Your task to perform on an android device: turn off location history Image 0: 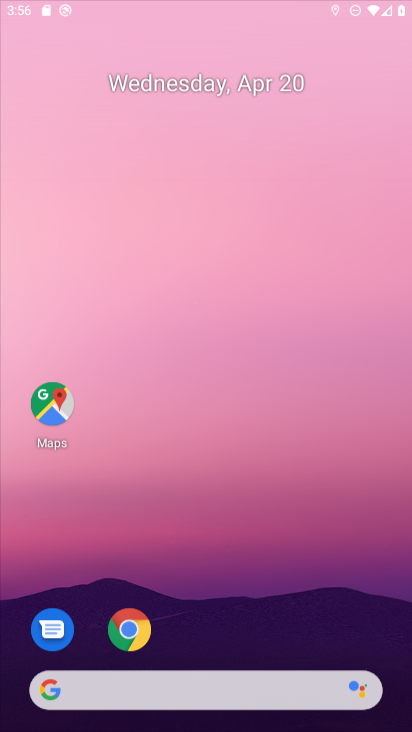
Step 0: drag from (275, 573) to (287, 73)
Your task to perform on an android device: turn off location history Image 1: 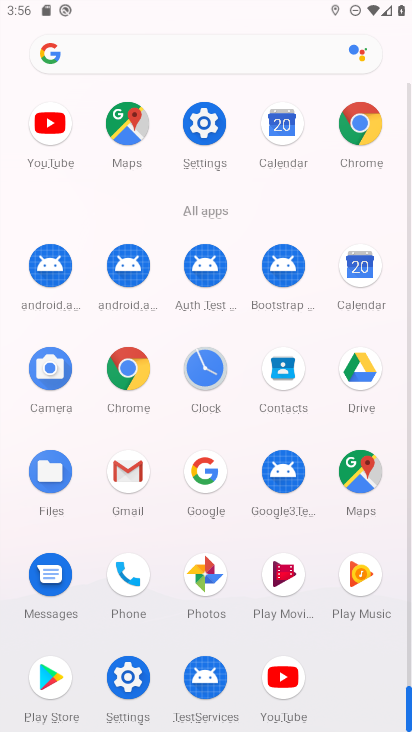
Step 1: click (134, 679)
Your task to perform on an android device: turn off location history Image 2: 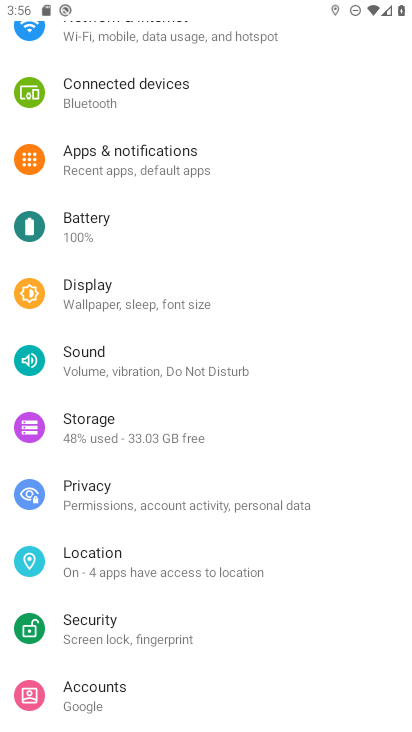
Step 2: click (147, 566)
Your task to perform on an android device: turn off location history Image 3: 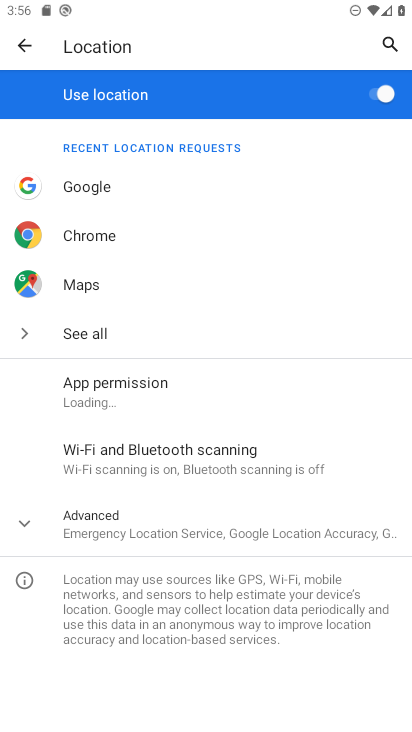
Step 3: click (156, 523)
Your task to perform on an android device: turn off location history Image 4: 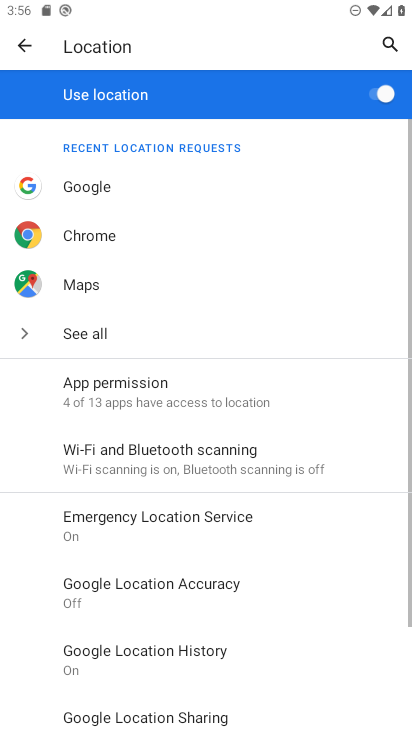
Step 4: drag from (177, 720) to (179, 428)
Your task to perform on an android device: turn off location history Image 5: 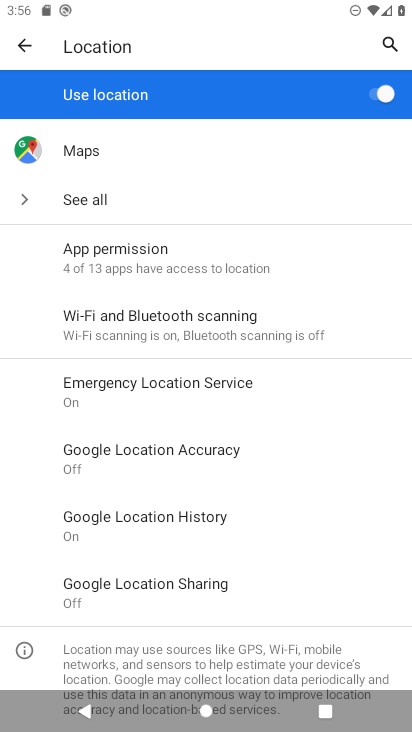
Step 5: click (207, 529)
Your task to perform on an android device: turn off location history Image 6: 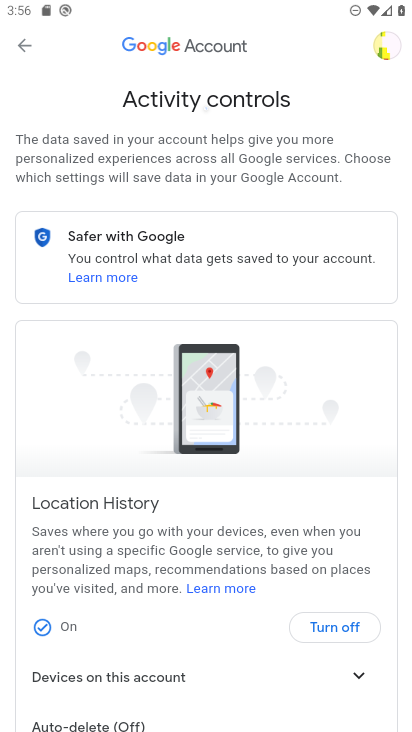
Step 6: click (327, 625)
Your task to perform on an android device: turn off location history Image 7: 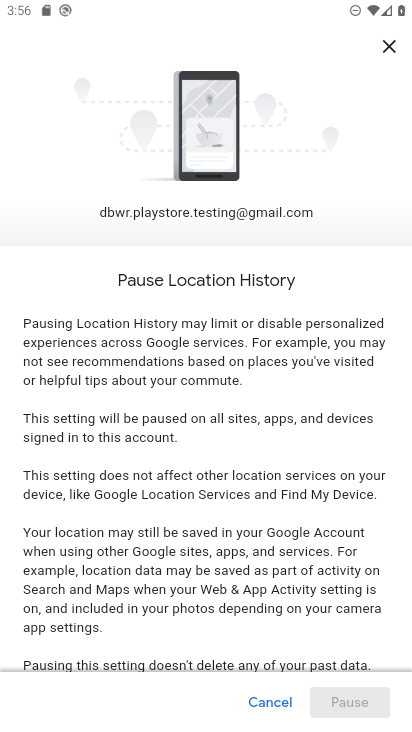
Step 7: drag from (290, 507) to (280, 94)
Your task to perform on an android device: turn off location history Image 8: 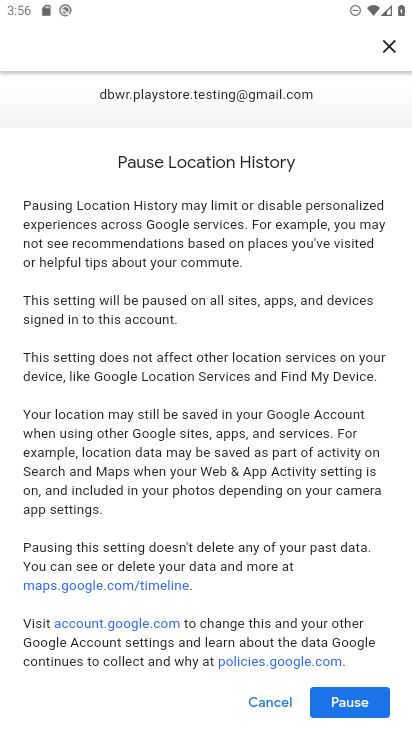
Step 8: click (362, 706)
Your task to perform on an android device: turn off location history Image 9: 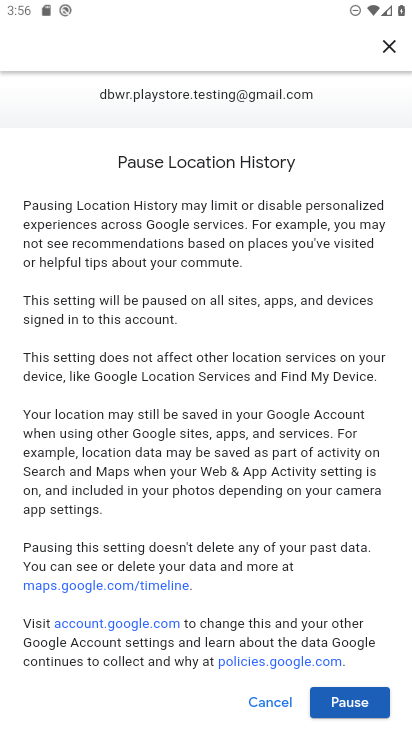
Step 9: click (362, 706)
Your task to perform on an android device: turn off location history Image 10: 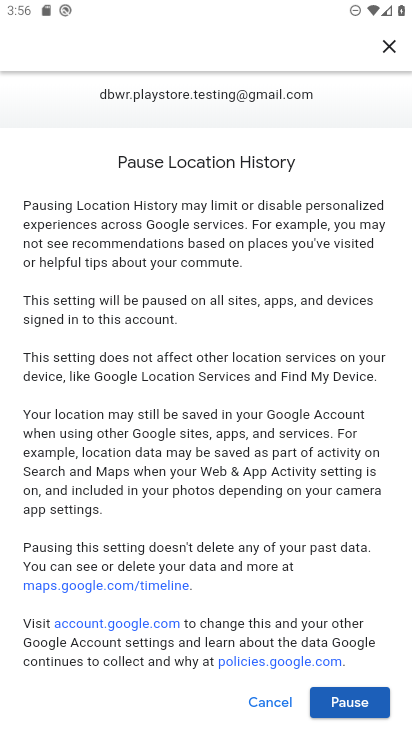
Step 10: click (361, 704)
Your task to perform on an android device: turn off location history Image 11: 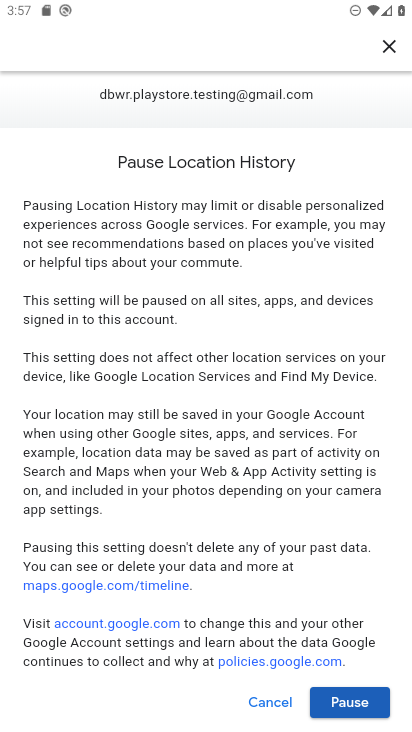
Step 11: click (360, 704)
Your task to perform on an android device: turn off location history Image 12: 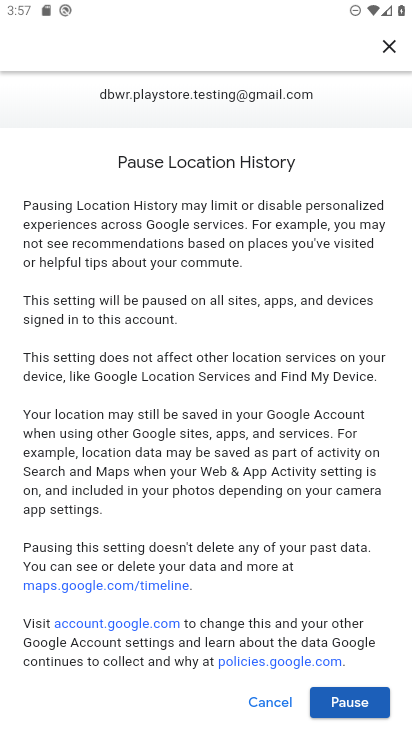
Step 12: click (360, 696)
Your task to perform on an android device: turn off location history Image 13: 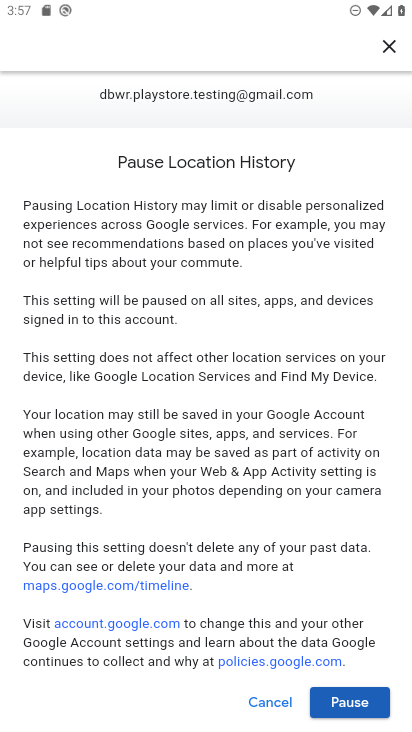
Step 13: click (359, 711)
Your task to perform on an android device: turn off location history Image 14: 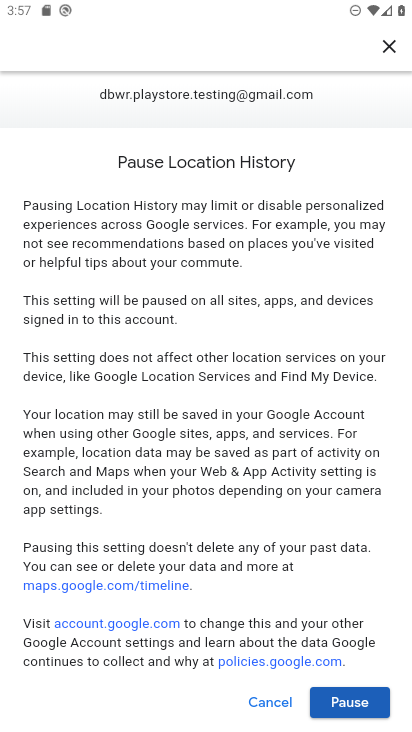
Step 14: click (359, 711)
Your task to perform on an android device: turn off location history Image 15: 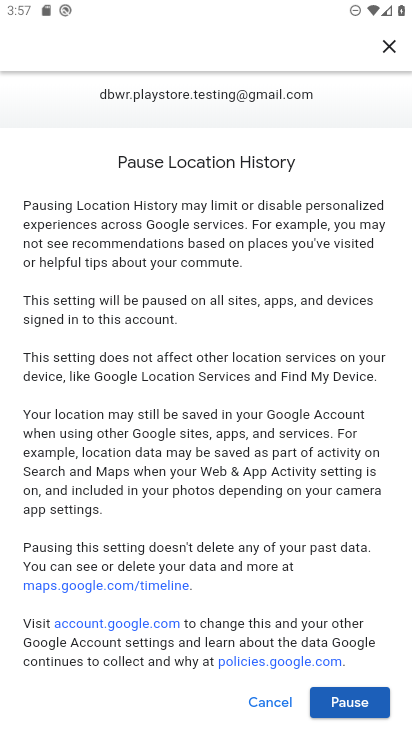
Step 15: click (359, 711)
Your task to perform on an android device: turn off location history Image 16: 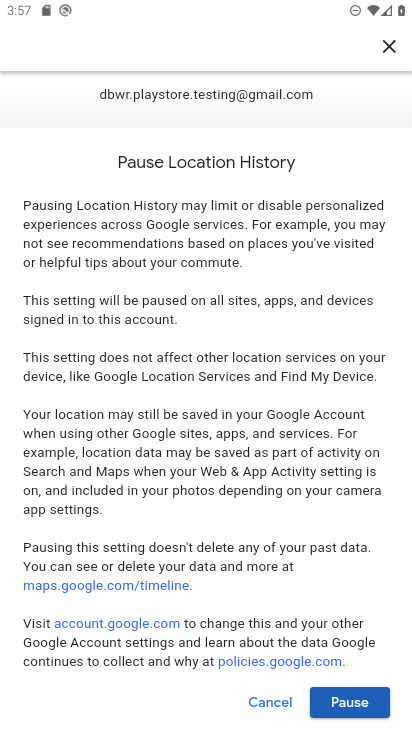
Step 16: drag from (344, 600) to (304, 268)
Your task to perform on an android device: turn off location history Image 17: 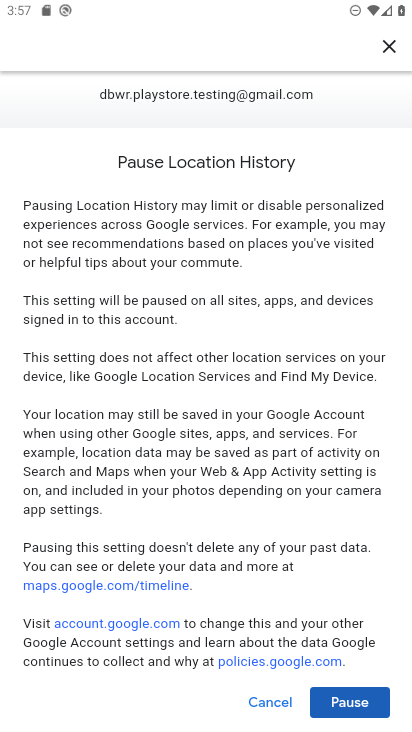
Step 17: click (354, 702)
Your task to perform on an android device: turn off location history Image 18: 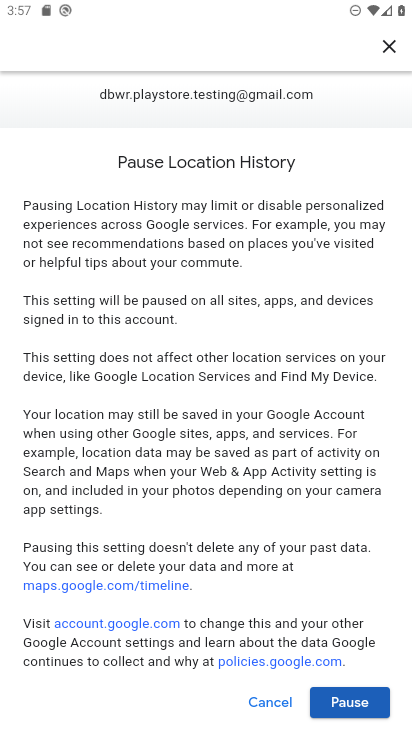
Step 18: click (354, 702)
Your task to perform on an android device: turn off location history Image 19: 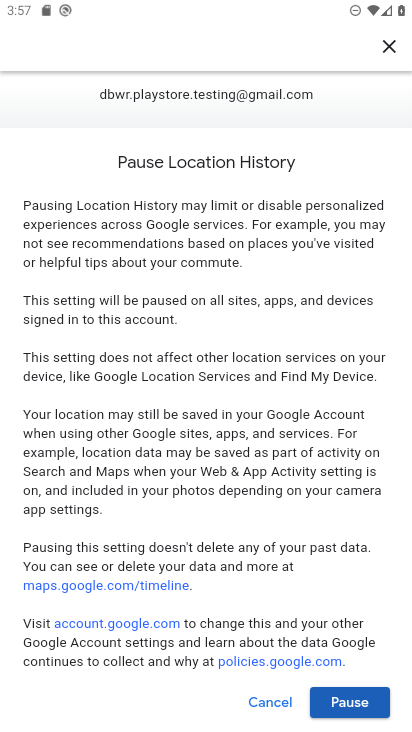
Step 19: click (348, 699)
Your task to perform on an android device: turn off location history Image 20: 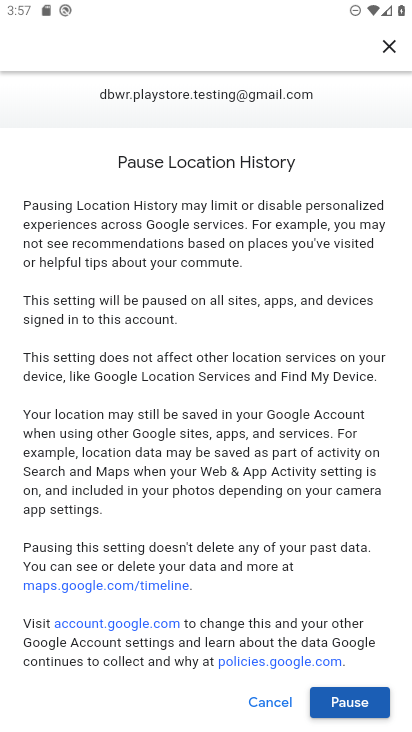
Step 20: click (348, 699)
Your task to perform on an android device: turn off location history Image 21: 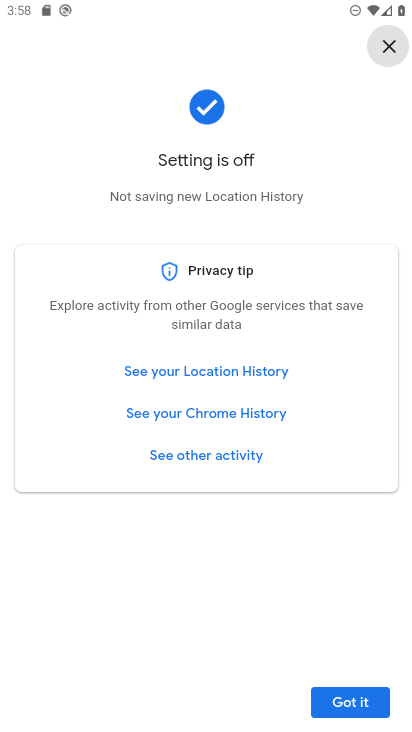
Step 21: task complete